Your task to perform on an android device: Open calendar and show me the second week of next month Image 0: 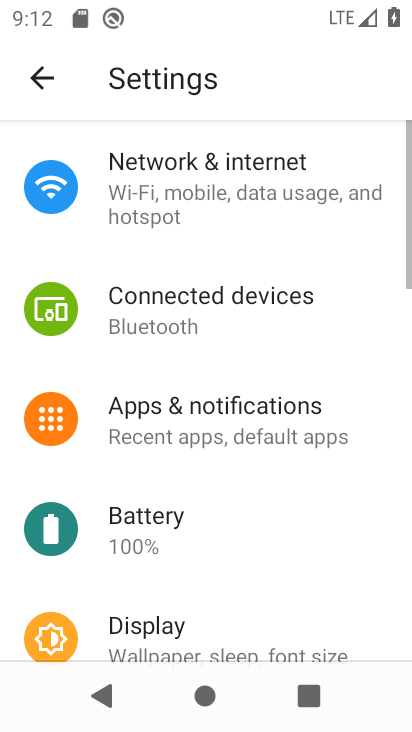
Step 0: press home button
Your task to perform on an android device: Open calendar and show me the second week of next month Image 1: 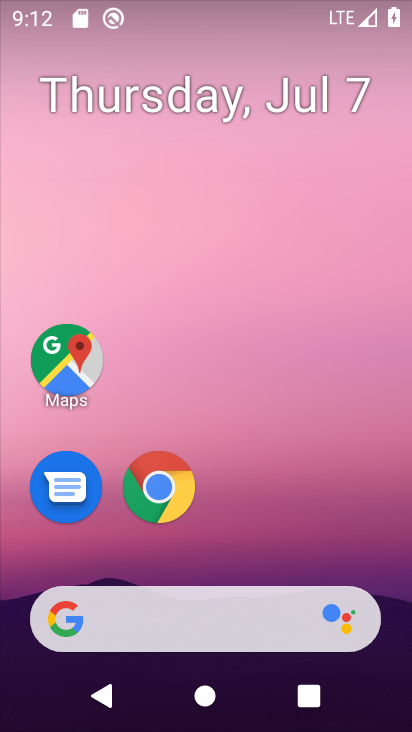
Step 1: drag from (365, 516) to (405, 279)
Your task to perform on an android device: Open calendar and show me the second week of next month Image 2: 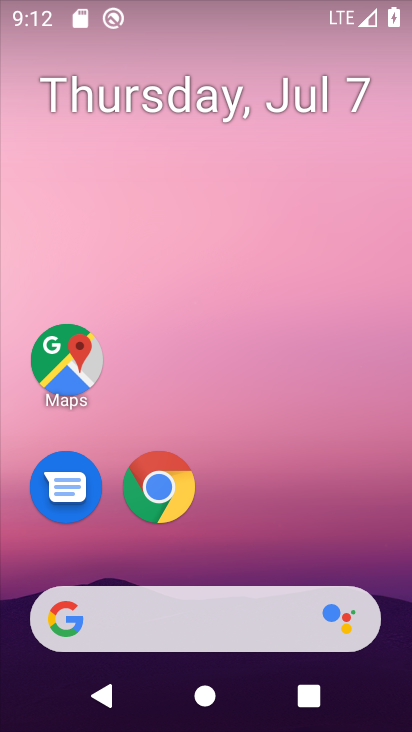
Step 2: drag from (369, 524) to (374, 43)
Your task to perform on an android device: Open calendar and show me the second week of next month Image 3: 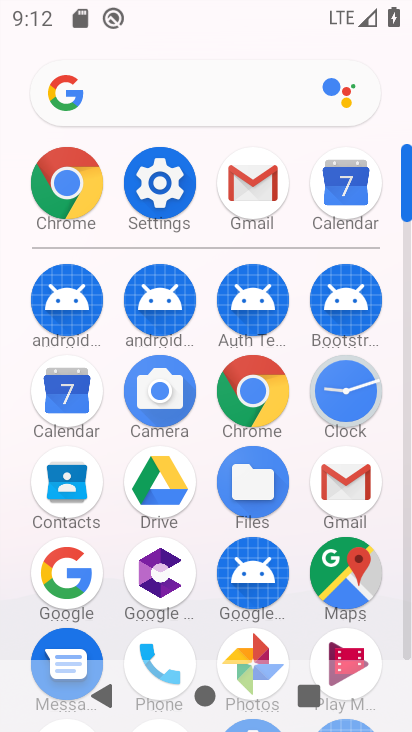
Step 3: click (354, 215)
Your task to perform on an android device: Open calendar and show me the second week of next month Image 4: 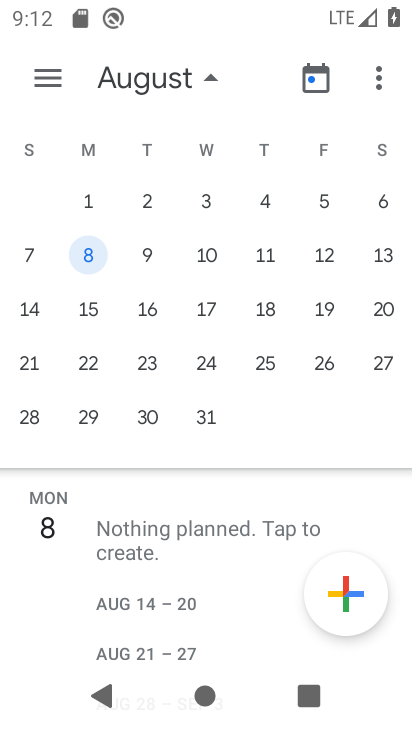
Step 4: task complete